Your task to perform on an android device: Go to network settings Image 0: 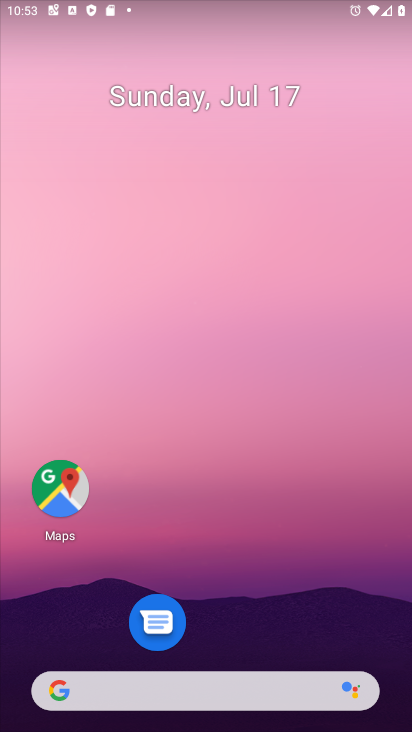
Step 0: drag from (282, 714) to (256, 189)
Your task to perform on an android device: Go to network settings Image 1: 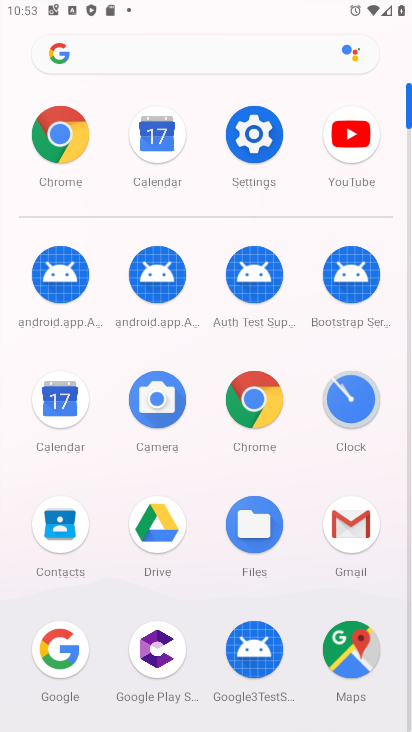
Step 1: click (260, 129)
Your task to perform on an android device: Go to network settings Image 2: 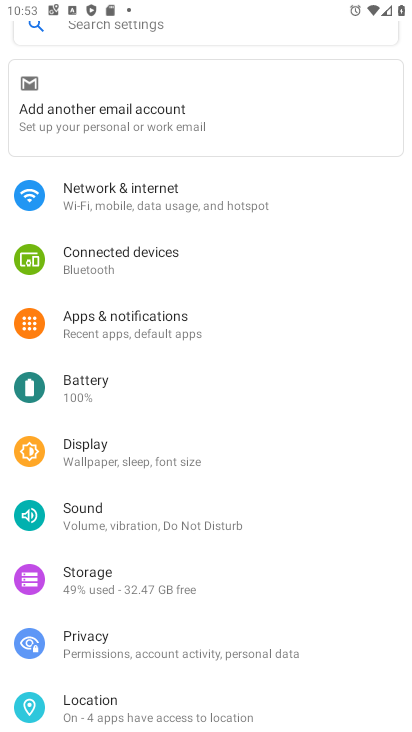
Step 2: click (201, 194)
Your task to perform on an android device: Go to network settings Image 3: 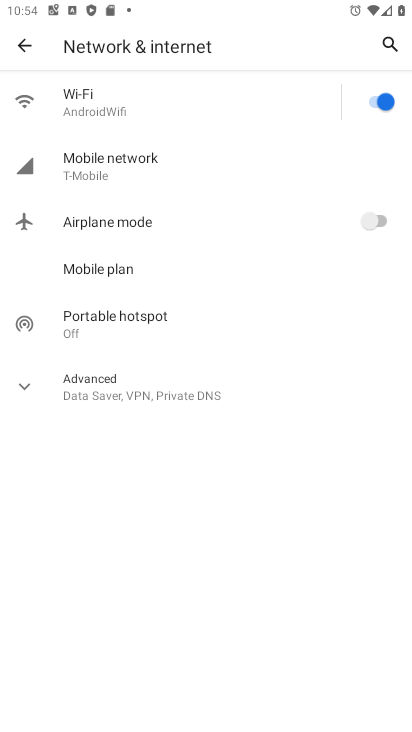
Step 3: task complete